Your task to perform on an android device: Open wifi settings Image 0: 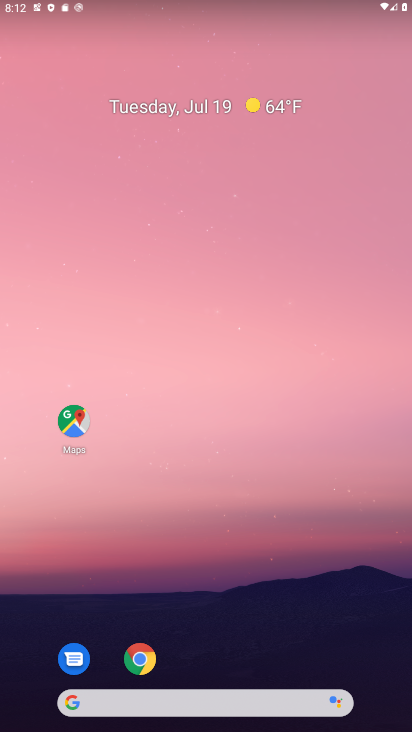
Step 0: drag from (226, 6) to (175, 284)
Your task to perform on an android device: Open wifi settings Image 1: 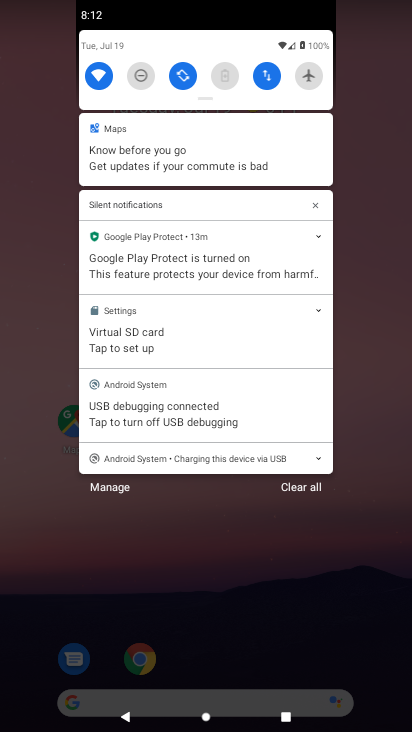
Step 1: click (97, 88)
Your task to perform on an android device: Open wifi settings Image 2: 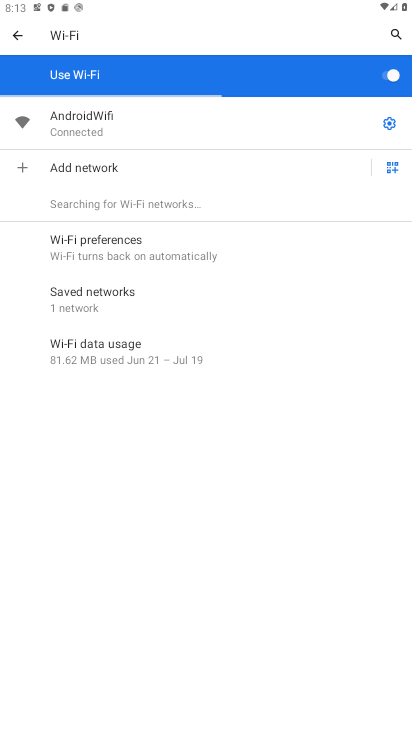
Step 2: task complete